Your task to perform on an android device: turn pop-ups on in chrome Image 0: 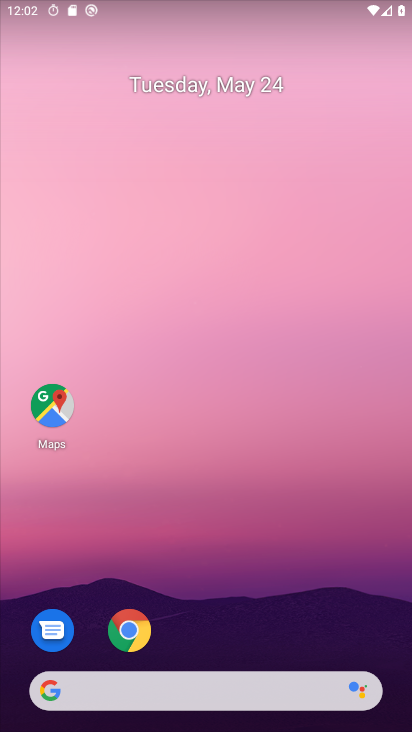
Step 0: drag from (232, 633) to (244, 219)
Your task to perform on an android device: turn pop-ups on in chrome Image 1: 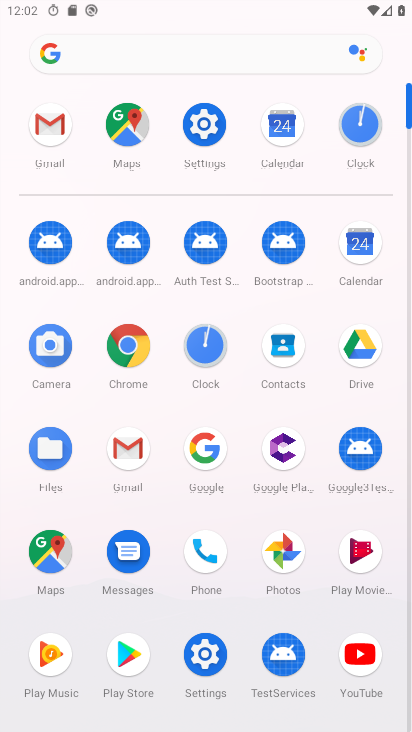
Step 1: click (119, 347)
Your task to perform on an android device: turn pop-ups on in chrome Image 2: 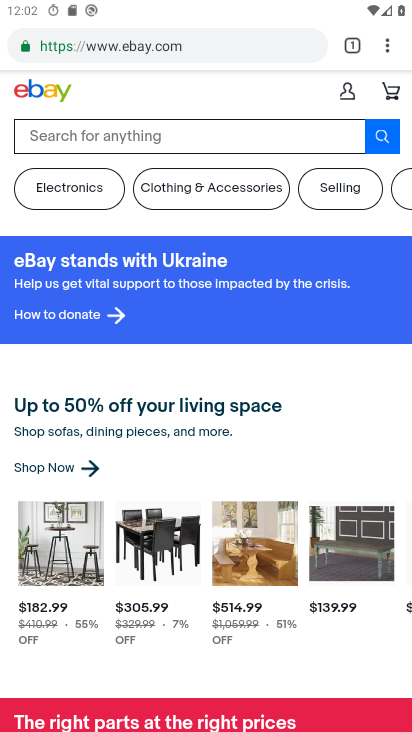
Step 2: click (392, 40)
Your task to perform on an android device: turn pop-ups on in chrome Image 3: 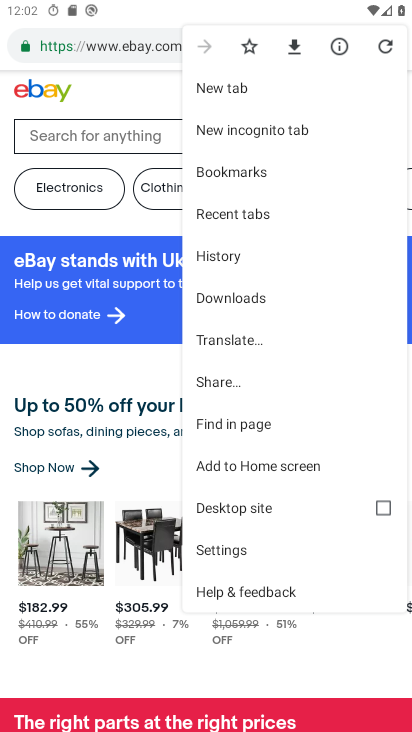
Step 3: click (210, 550)
Your task to perform on an android device: turn pop-ups on in chrome Image 4: 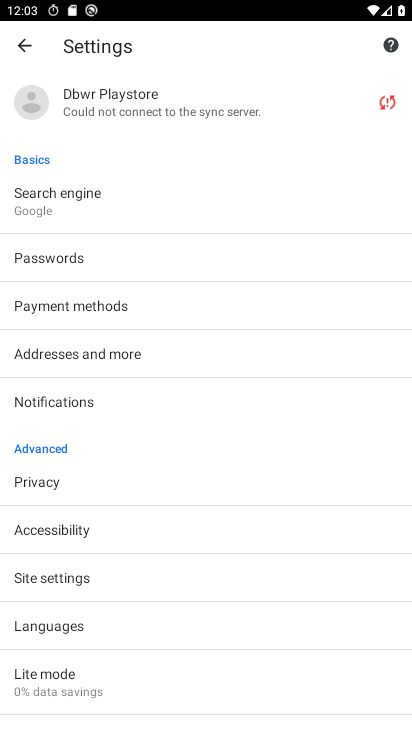
Step 4: click (73, 583)
Your task to perform on an android device: turn pop-ups on in chrome Image 5: 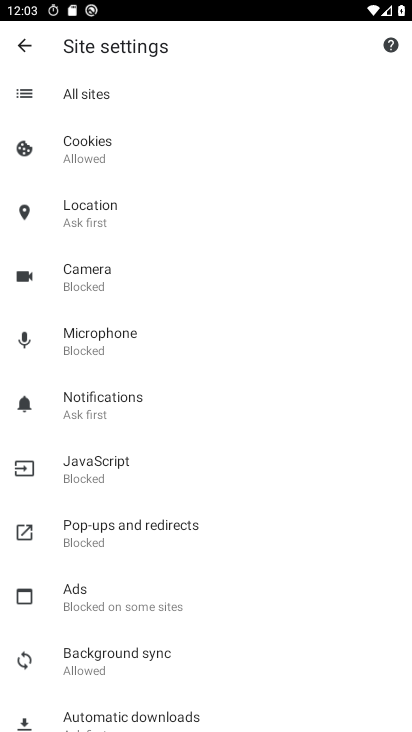
Step 5: click (106, 534)
Your task to perform on an android device: turn pop-ups on in chrome Image 6: 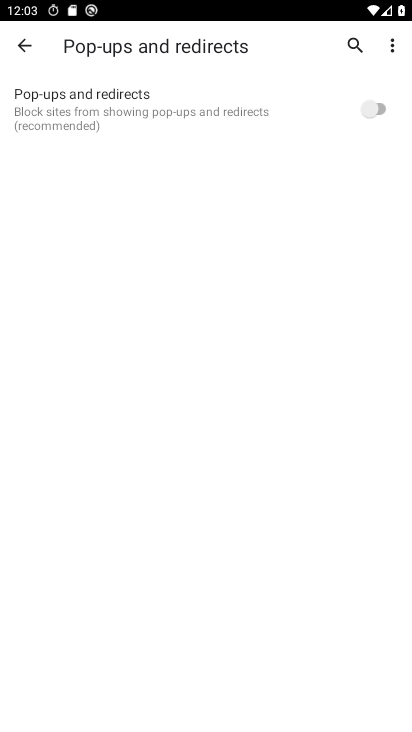
Step 6: click (382, 115)
Your task to perform on an android device: turn pop-ups on in chrome Image 7: 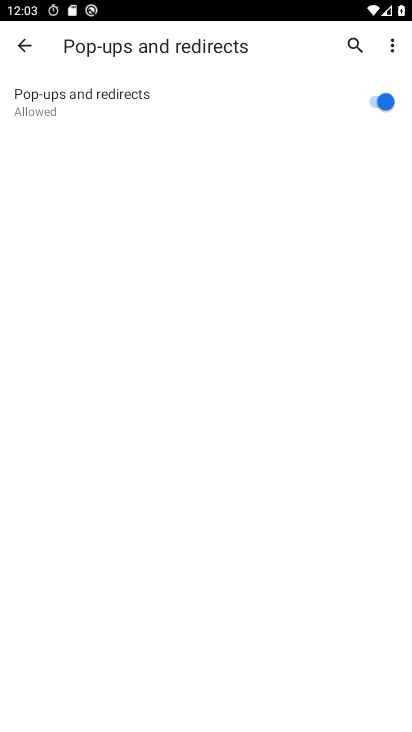
Step 7: task complete